Your task to perform on an android device: Open accessibility settings Image 0: 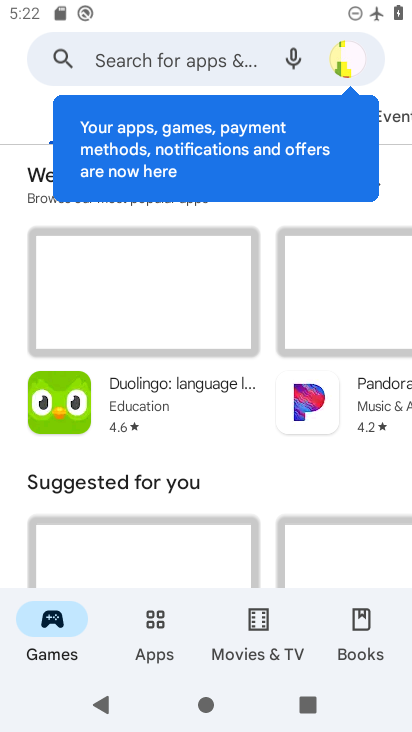
Step 0: press home button
Your task to perform on an android device: Open accessibility settings Image 1: 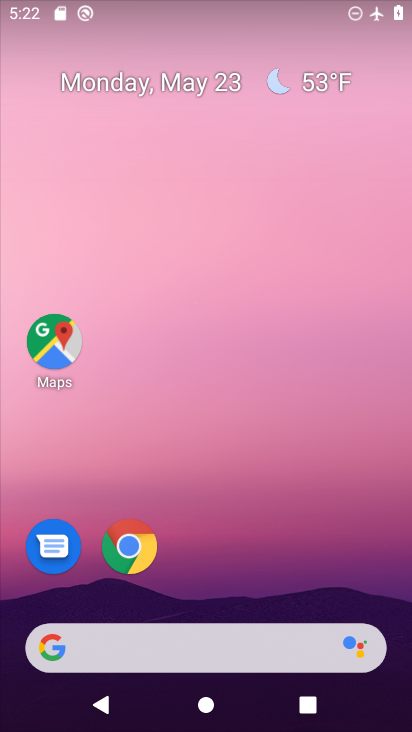
Step 1: drag from (231, 580) to (227, 71)
Your task to perform on an android device: Open accessibility settings Image 2: 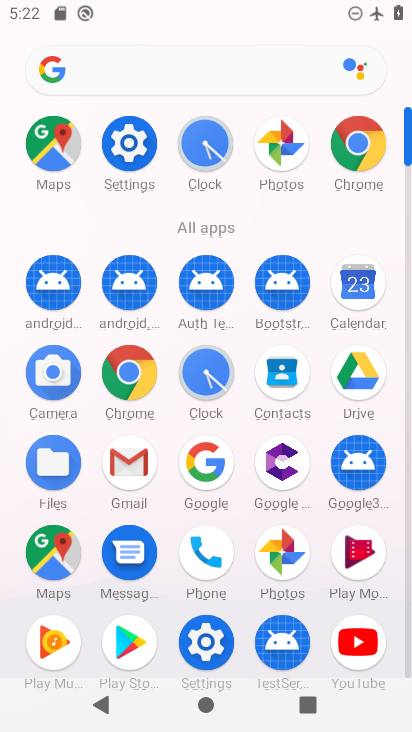
Step 2: click (123, 146)
Your task to perform on an android device: Open accessibility settings Image 3: 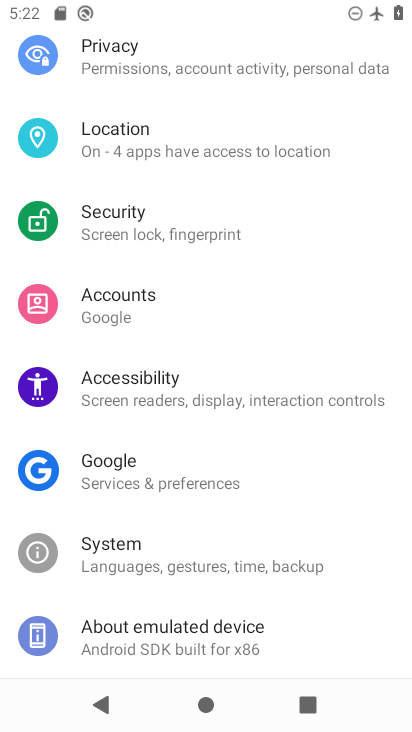
Step 3: click (176, 379)
Your task to perform on an android device: Open accessibility settings Image 4: 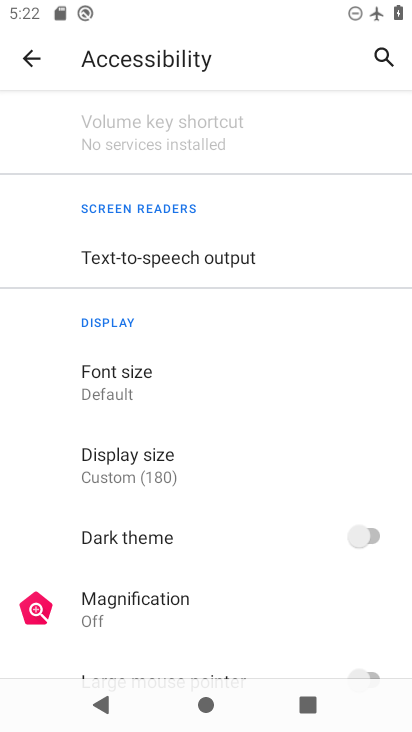
Step 4: task complete